Your task to perform on an android device: read, delete, or share a saved page in the chrome app Image 0: 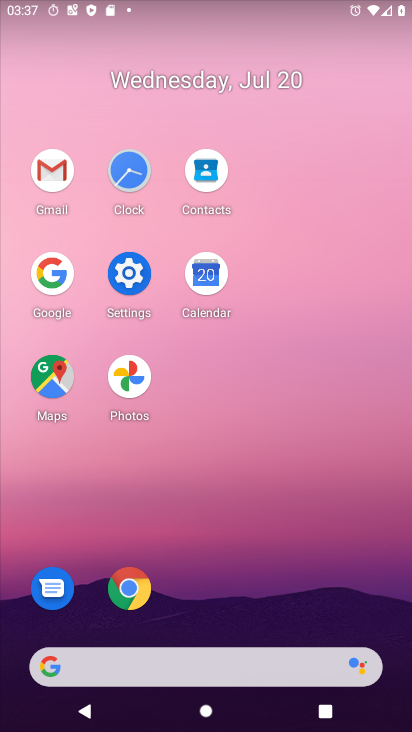
Step 0: click (129, 573)
Your task to perform on an android device: read, delete, or share a saved page in the chrome app Image 1: 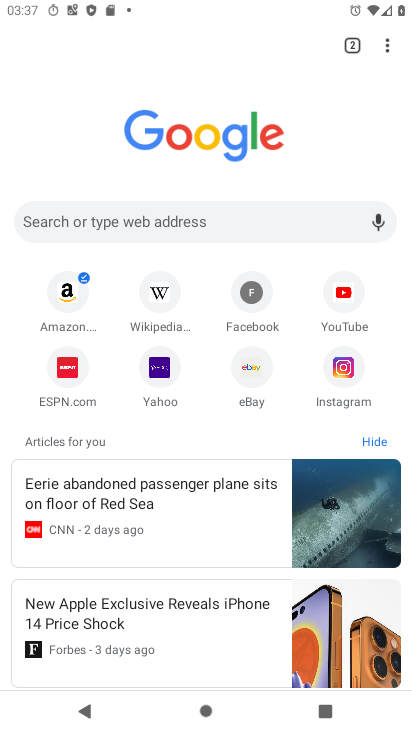
Step 1: click (394, 45)
Your task to perform on an android device: read, delete, or share a saved page in the chrome app Image 2: 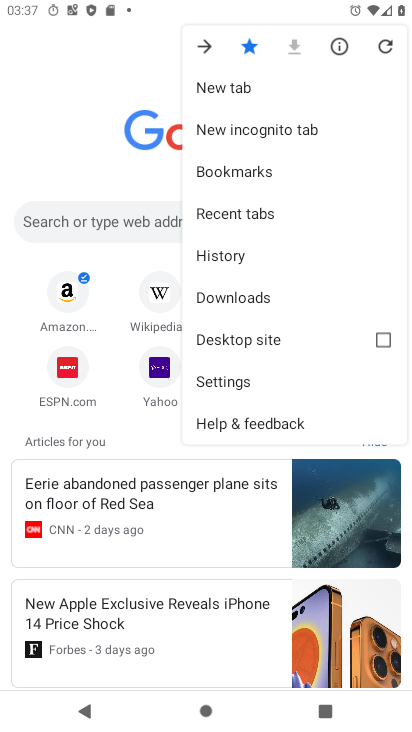
Step 2: click (243, 287)
Your task to perform on an android device: read, delete, or share a saved page in the chrome app Image 3: 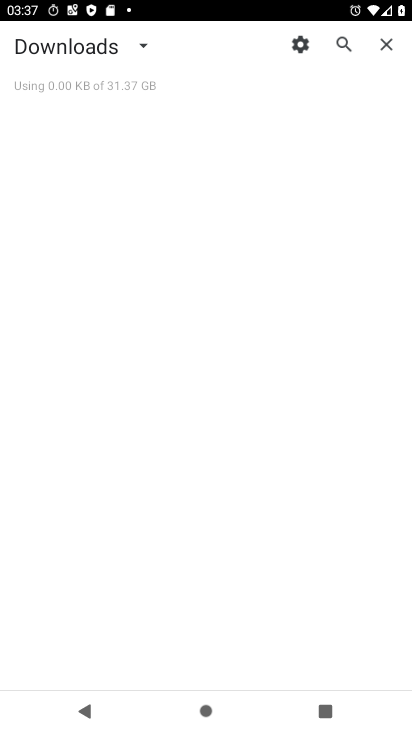
Step 3: task complete